Your task to perform on an android device: find which apps use the phone's location Image 0: 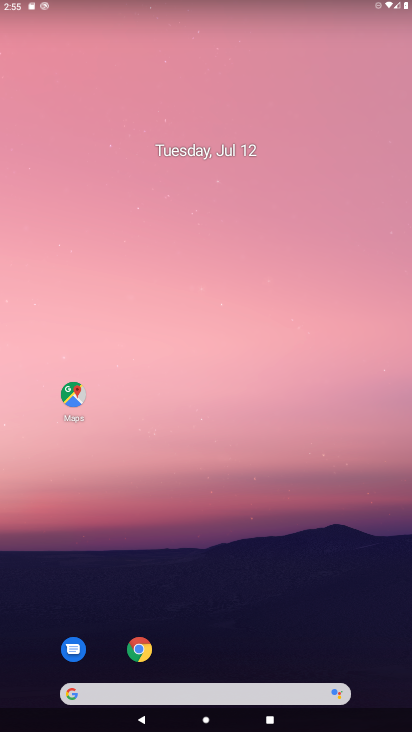
Step 0: drag from (338, 632) to (313, 263)
Your task to perform on an android device: find which apps use the phone's location Image 1: 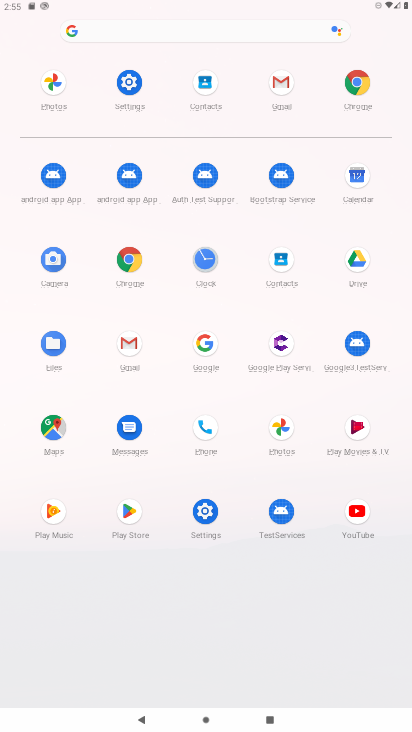
Step 1: click (130, 89)
Your task to perform on an android device: find which apps use the phone's location Image 2: 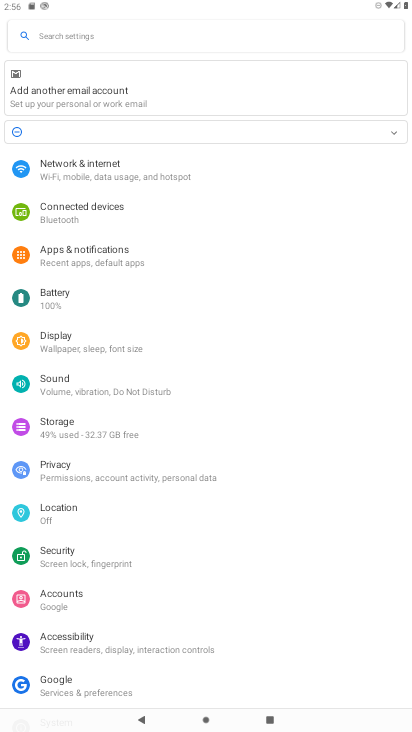
Step 2: click (91, 515)
Your task to perform on an android device: find which apps use the phone's location Image 3: 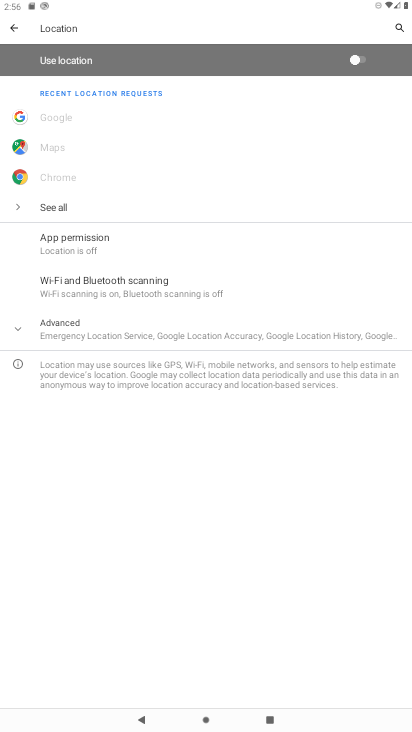
Step 3: task complete